Your task to perform on an android device: turn notification dots on Image 0: 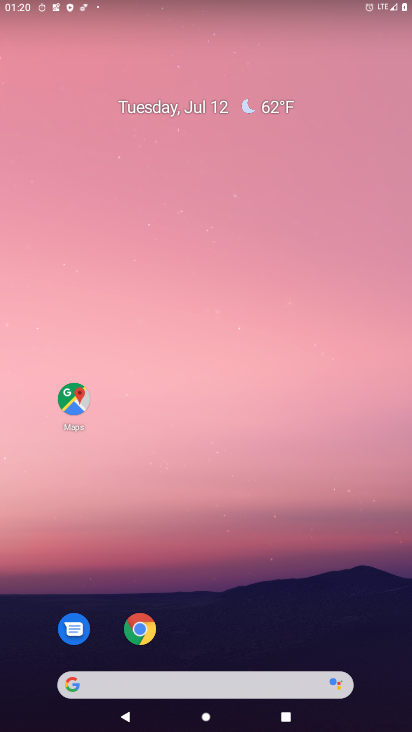
Step 0: drag from (224, 600) to (173, 4)
Your task to perform on an android device: turn notification dots on Image 1: 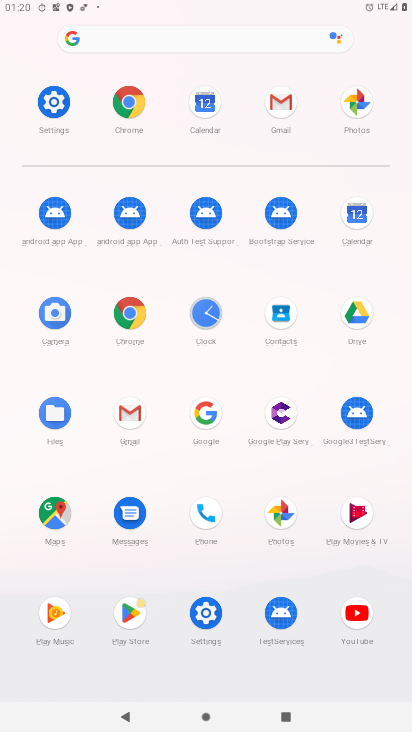
Step 1: click (54, 89)
Your task to perform on an android device: turn notification dots on Image 2: 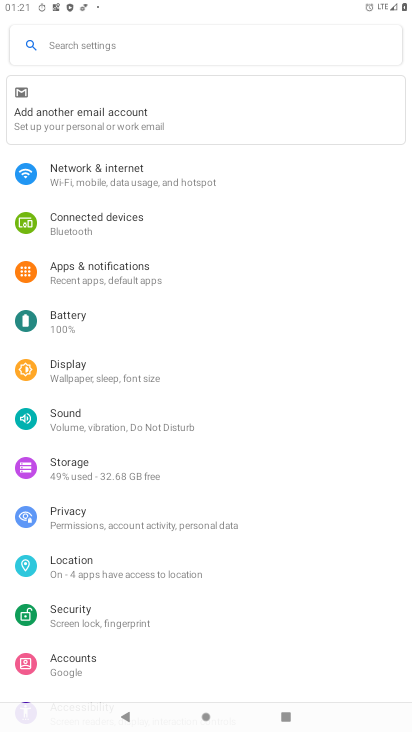
Step 2: click (97, 263)
Your task to perform on an android device: turn notification dots on Image 3: 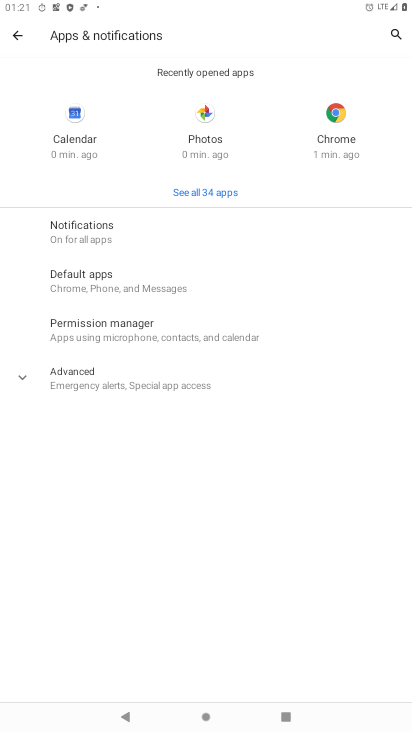
Step 3: click (71, 223)
Your task to perform on an android device: turn notification dots on Image 4: 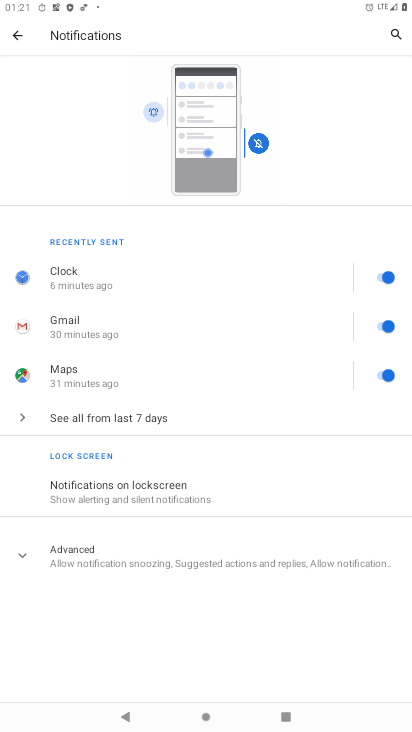
Step 4: click (107, 565)
Your task to perform on an android device: turn notification dots on Image 5: 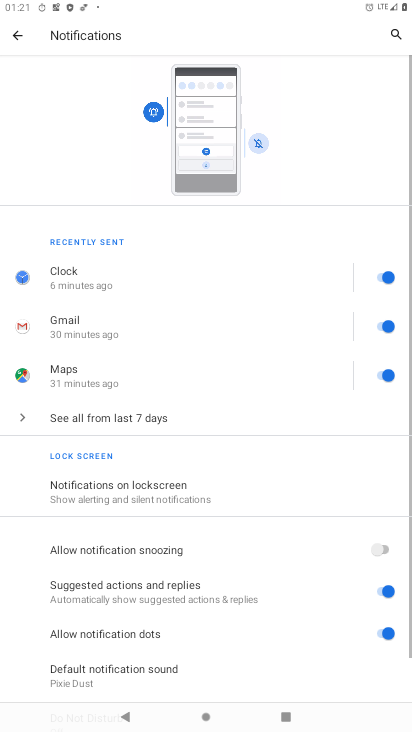
Step 5: task complete